Your task to perform on an android device: show emergency info Image 0: 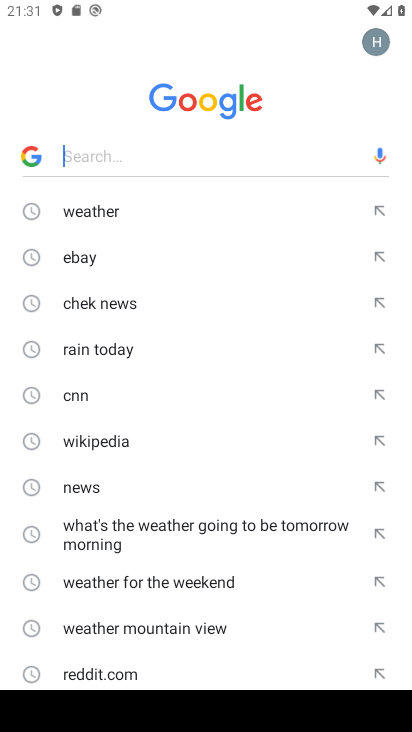
Step 0: press back button
Your task to perform on an android device: show emergency info Image 1: 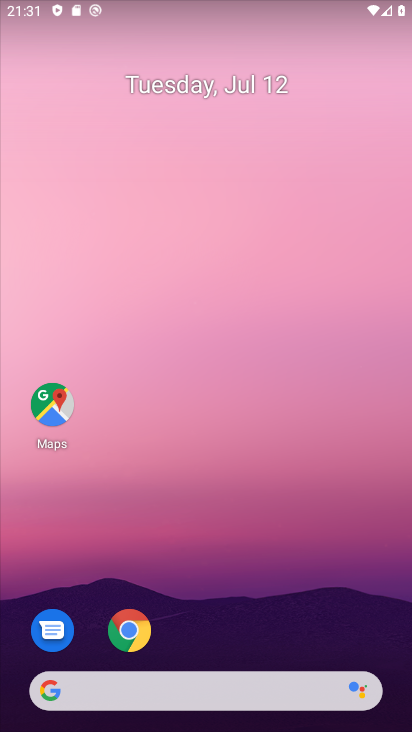
Step 1: drag from (205, 607) to (325, 0)
Your task to perform on an android device: show emergency info Image 2: 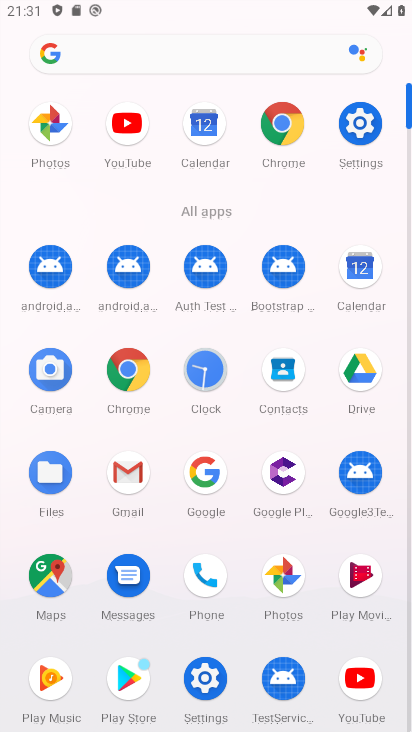
Step 2: click (346, 114)
Your task to perform on an android device: show emergency info Image 3: 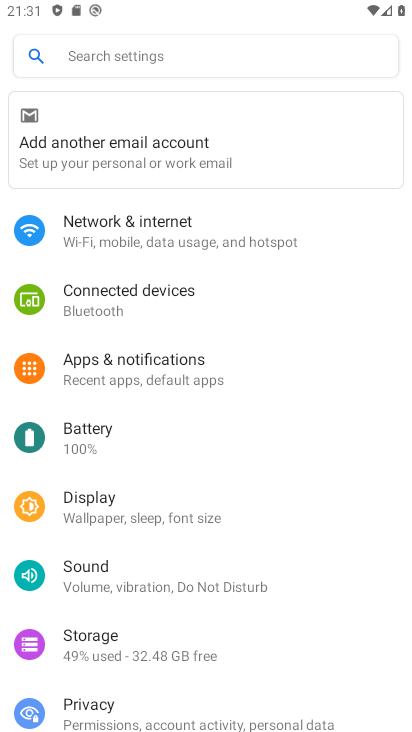
Step 3: drag from (135, 630) to (277, 31)
Your task to perform on an android device: show emergency info Image 4: 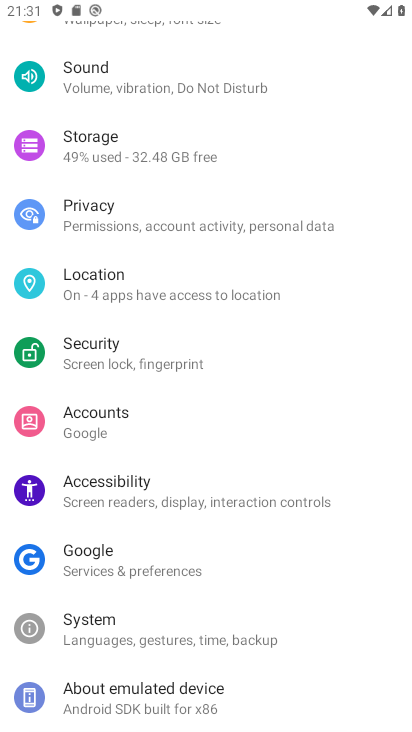
Step 4: drag from (154, 702) to (278, 48)
Your task to perform on an android device: show emergency info Image 5: 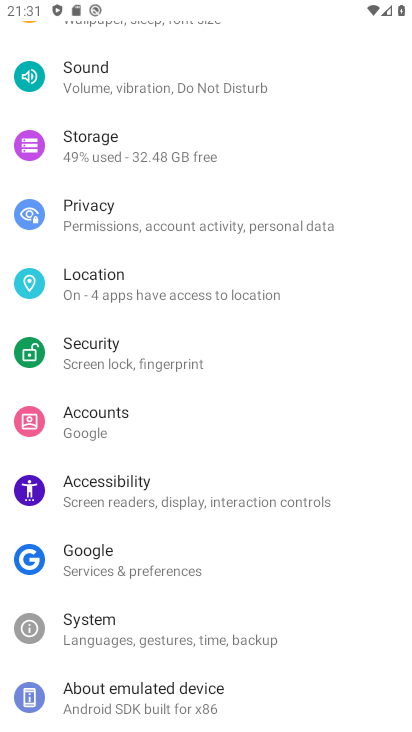
Step 5: click (154, 696)
Your task to perform on an android device: show emergency info Image 6: 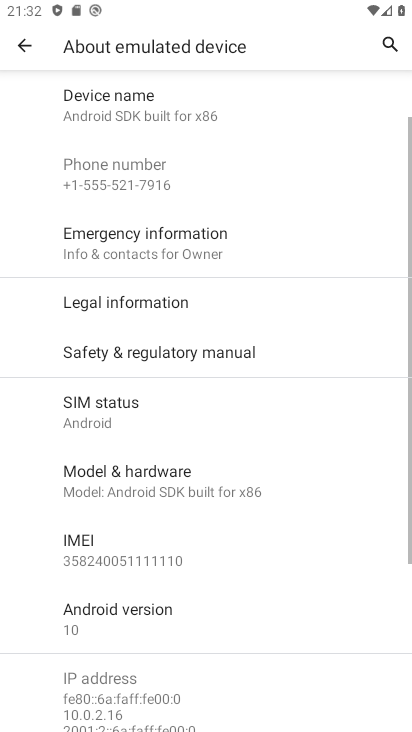
Step 6: click (135, 235)
Your task to perform on an android device: show emergency info Image 7: 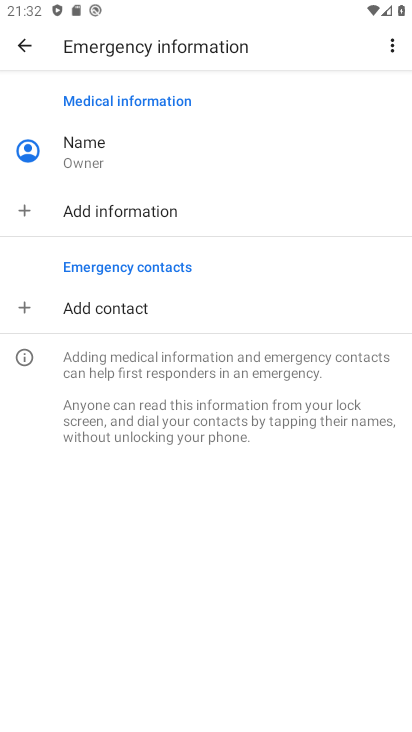
Step 7: task complete